Your task to perform on an android device: move an email to a new category in the gmail app Image 0: 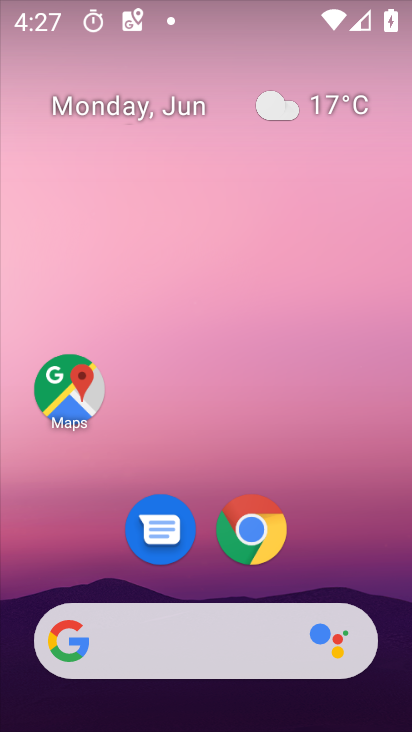
Step 0: drag from (355, 540) to (310, 39)
Your task to perform on an android device: move an email to a new category in the gmail app Image 1: 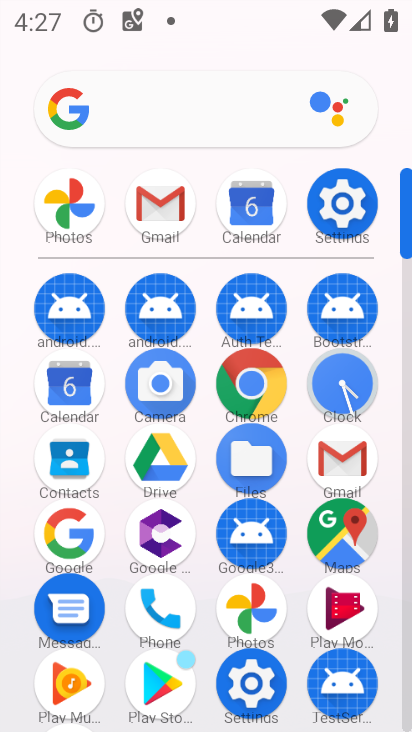
Step 1: click (161, 200)
Your task to perform on an android device: move an email to a new category in the gmail app Image 2: 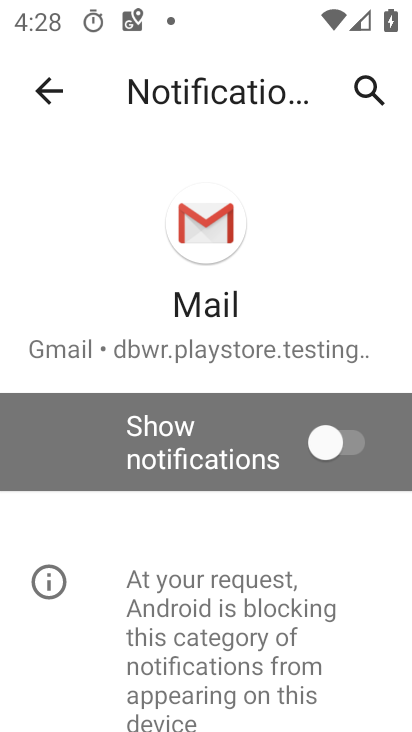
Step 2: click (46, 88)
Your task to perform on an android device: move an email to a new category in the gmail app Image 3: 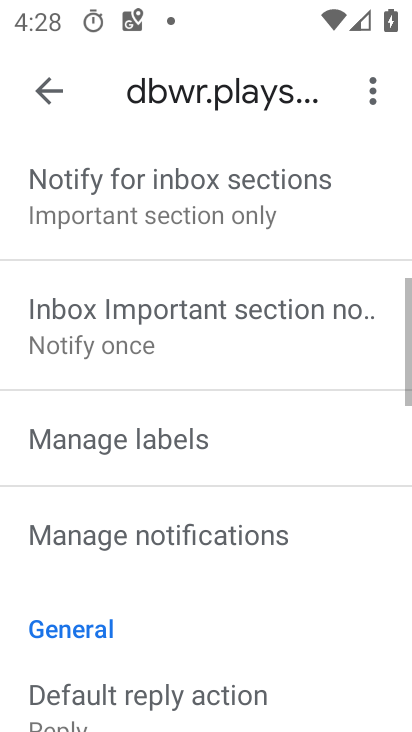
Step 3: click (46, 88)
Your task to perform on an android device: move an email to a new category in the gmail app Image 4: 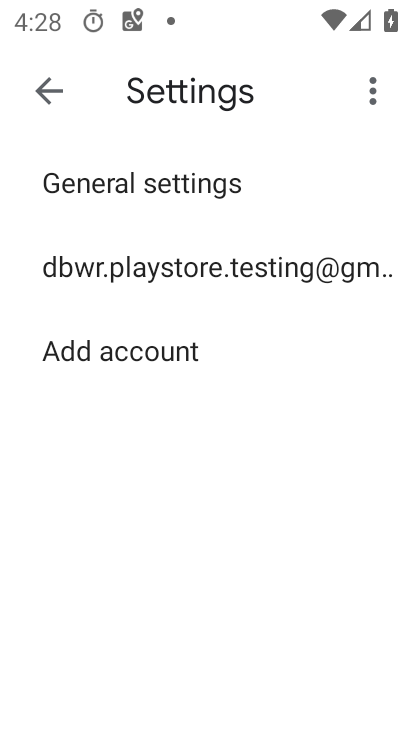
Step 4: click (46, 88)
Your task to perform on an android device: move an email to a new category in the gmail app Image 5: 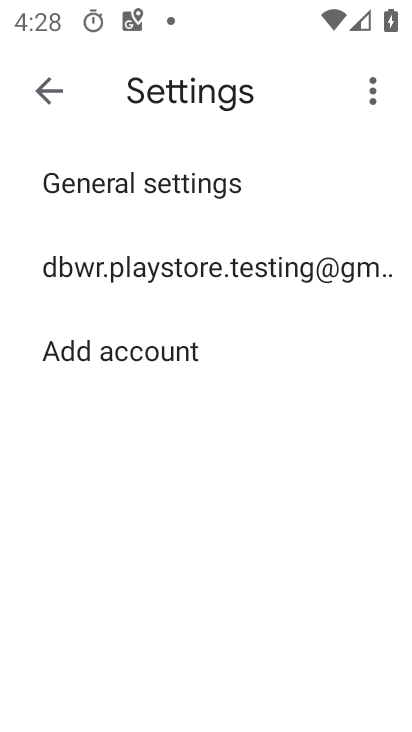
Step 5: click (46, 88)
Your task to perform on an android device: move an email to a new category in the gmail app Image 6: 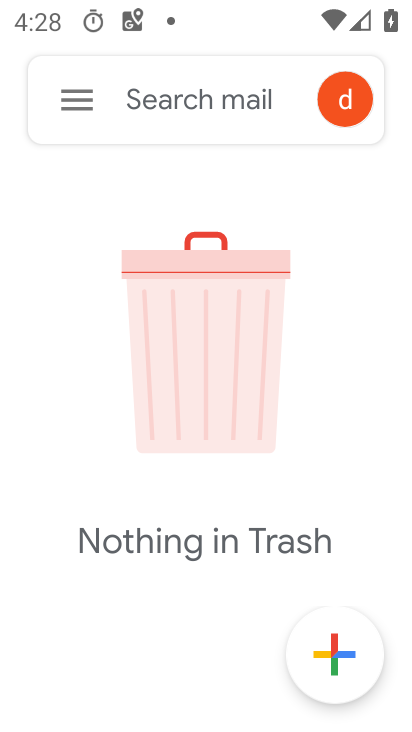
Step 6: click (56, 95)
Your task to perform on an android device: move an email to a new category in the gmail app Image 7: 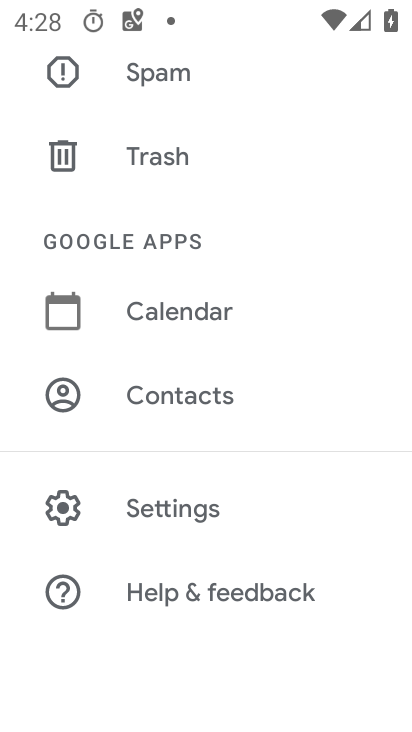
Step 7: drag from (187, 246) to (173, 445)
Your task to perform on an android device: move an email to a new category in the gmail app Image 8: 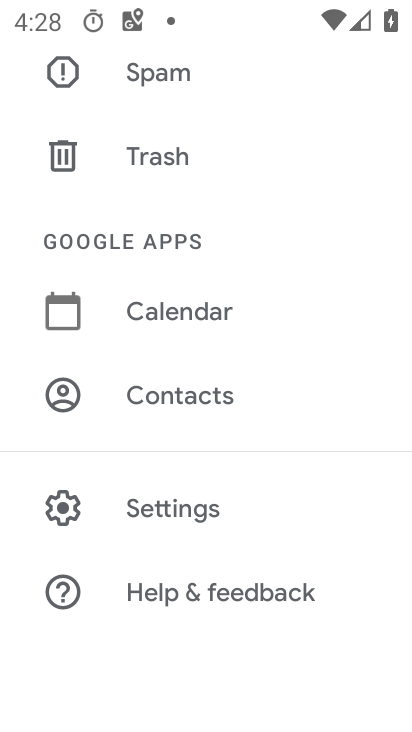
Step 8: drag from (193, 165) to (199, 452)
Your task to perform on an android device: move an email to a new category in the gmail app Image 9: 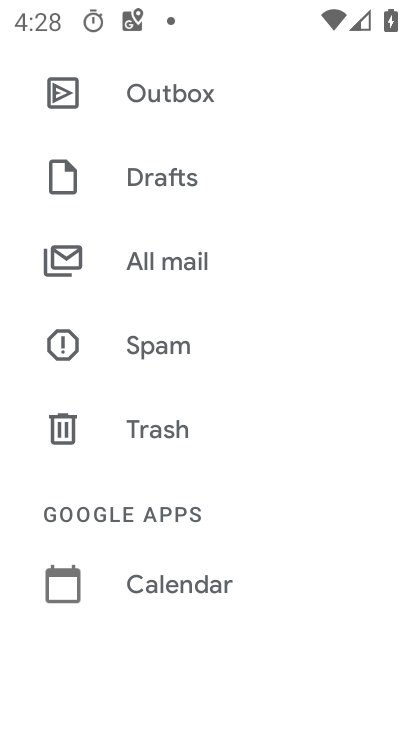
Step 9: click (214, 285)
Your task to perform on an android device: move an email to a new category in the gmail app Image 10: 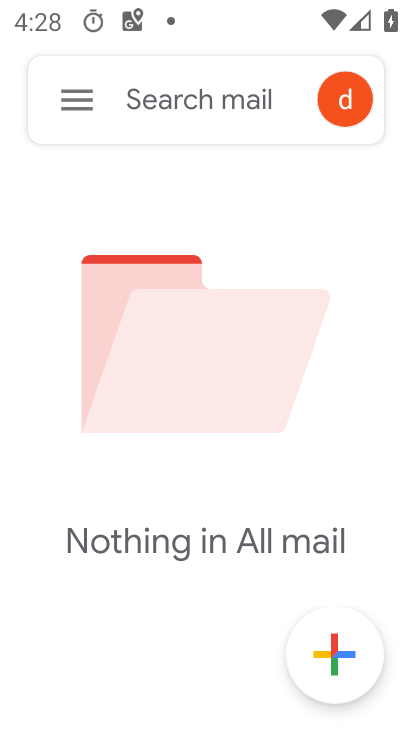
Step 10: click (68, 95)
Your task to perform on an android device: move an email to a new category in the gmail app Image 11: 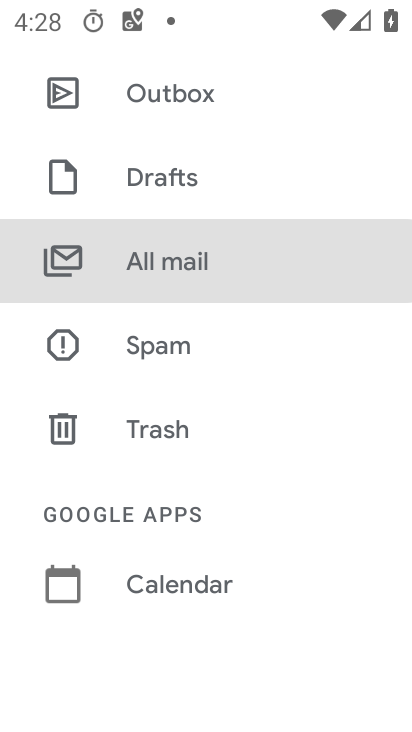
Step 11: drag from (269, 231) to (304, 508)
Your task to perform on an android device: move an email to a new category in the gmail app Image 12: 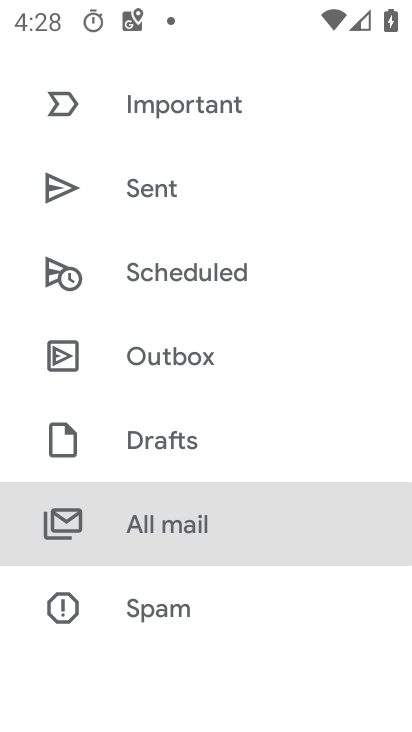
Step 12: drag from (312, 249) to (264, 499)
Your task to perform on an android device: move an email to a new category in the gmail app Image 13: 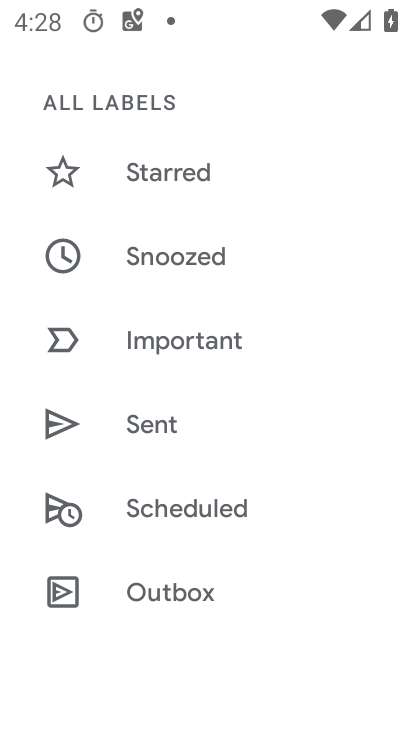
Step 13: drag from (271, 178) to (235, 485)
Your task to perform on an android device: move an email to a new category in the gmail app Image 14: 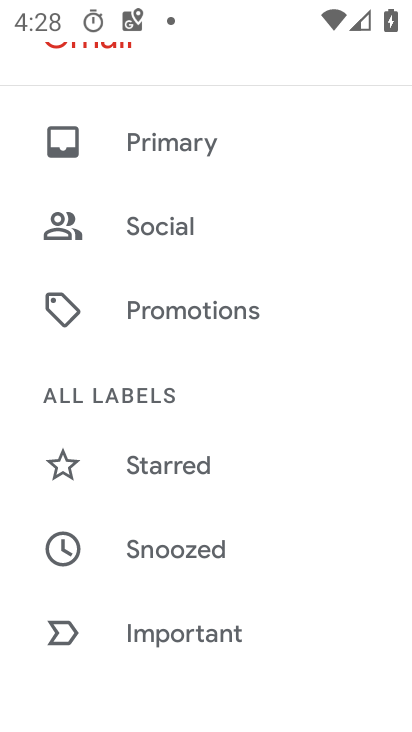
Step 14: click (196, 163)
Your task to perform on an android device: move an email to a new category in the gmail app Image 15: 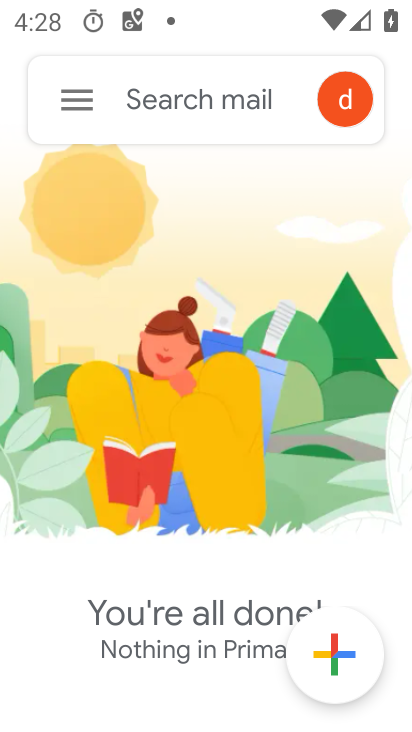
Step 15: task complete